Your task to perform on an android device: Search for the best gaming monitor on Best Buy Image 0: 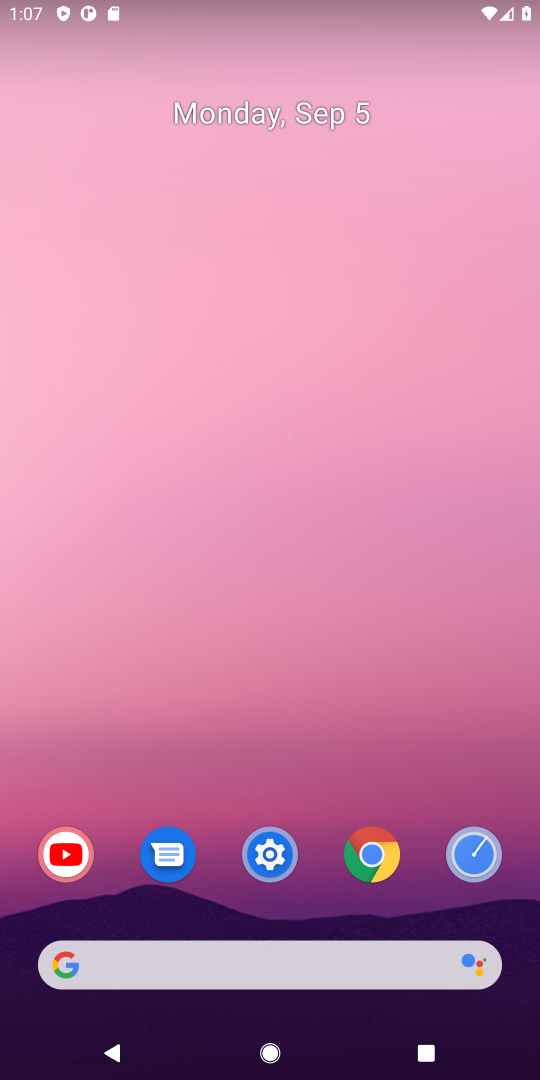
Step 0: click (366, 966)
Your task to perform on an android device: Search for the best gaming monitor on Best Buy Image 1: 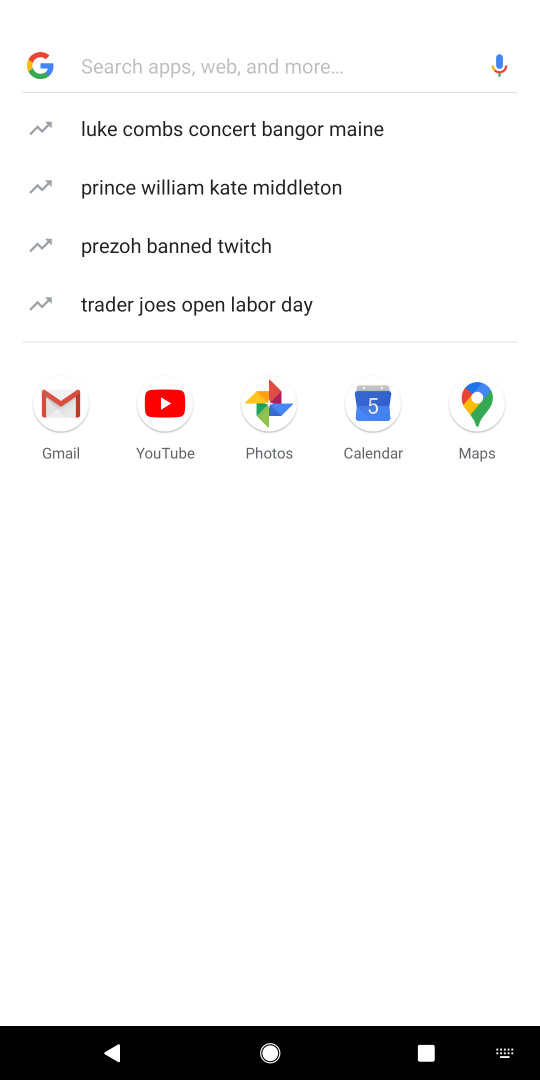
Step 1: type "Best Buy"
Your task to perform on an android device: Search for the best gaming monitor on Best Buy Image 2: 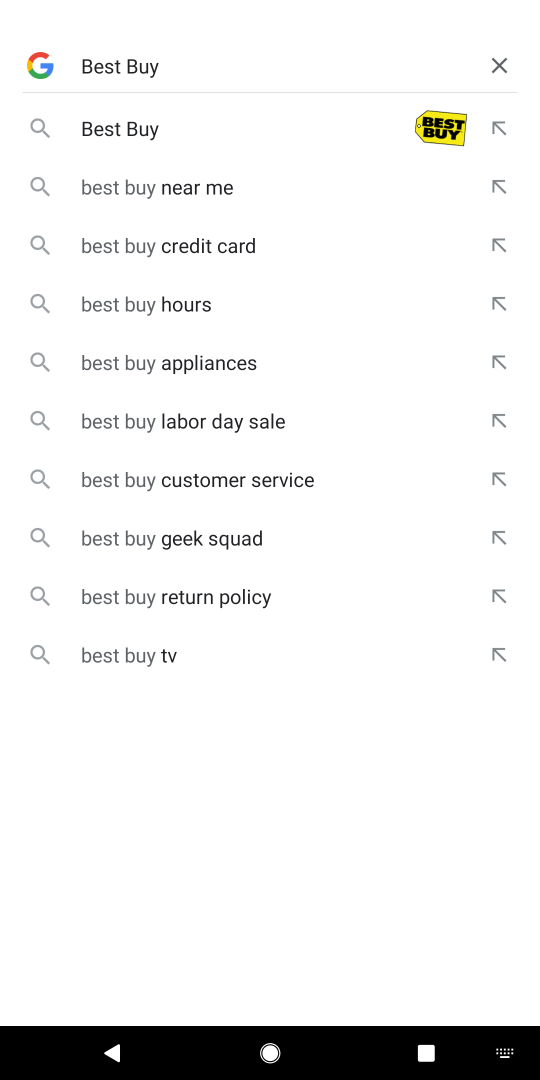
Step 2: type ""
Your task to perform on an android device: Search for the best gaming monitor on Best Buy Image 3: 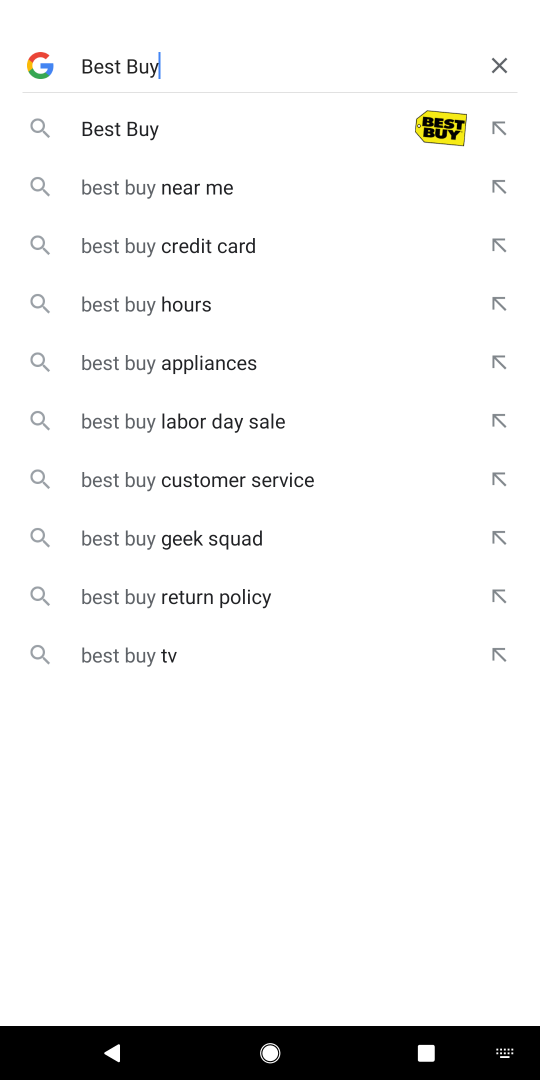
Step 3: click (295, 124)
Your task to perform on an android device: Search for the best gaming monitor on Best Buy Image 4: 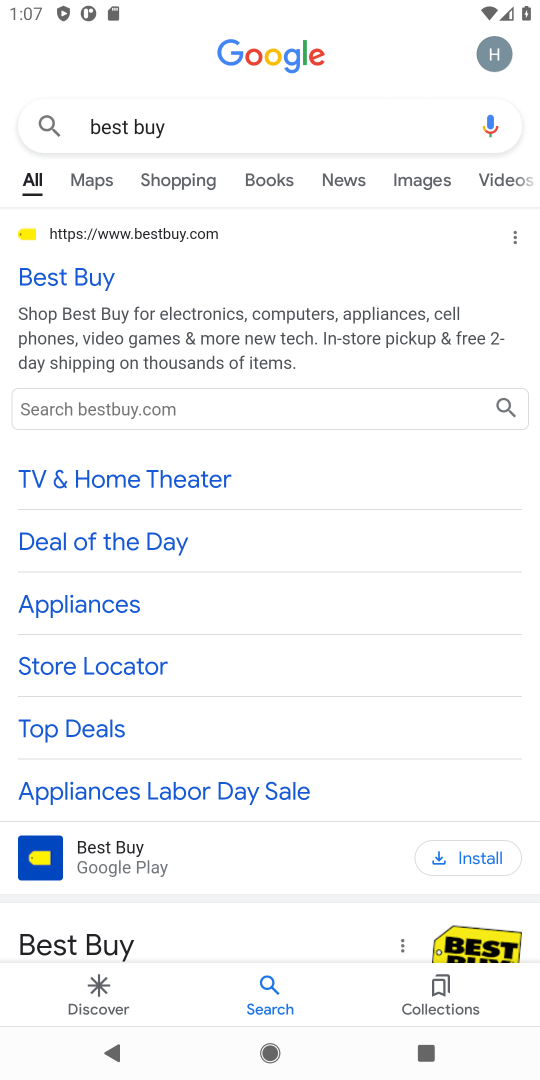
Step 4: click (90, 278)
Your task to perform on an android device: Search for the best gaming monitor on Best Buy Image 5: 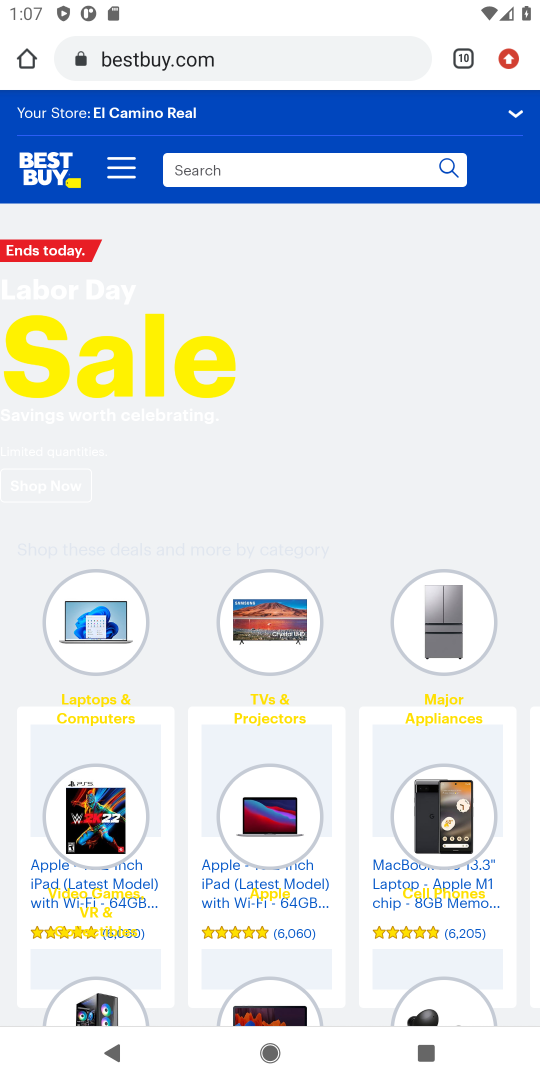
Step 5: click (242, 163)
Your task to perform on an android device: Search for the best gaming monitor on Best Buy Image 6: 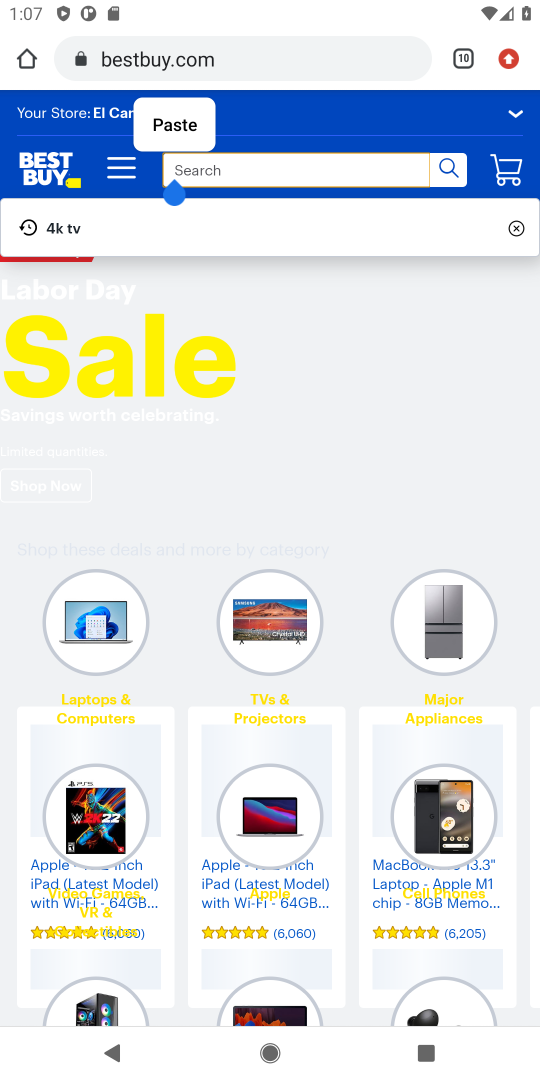
Step 6: type "gaming monitor"
Your task to perform on an android device: Search for the best gaming monitor on Best Buy Image 7: 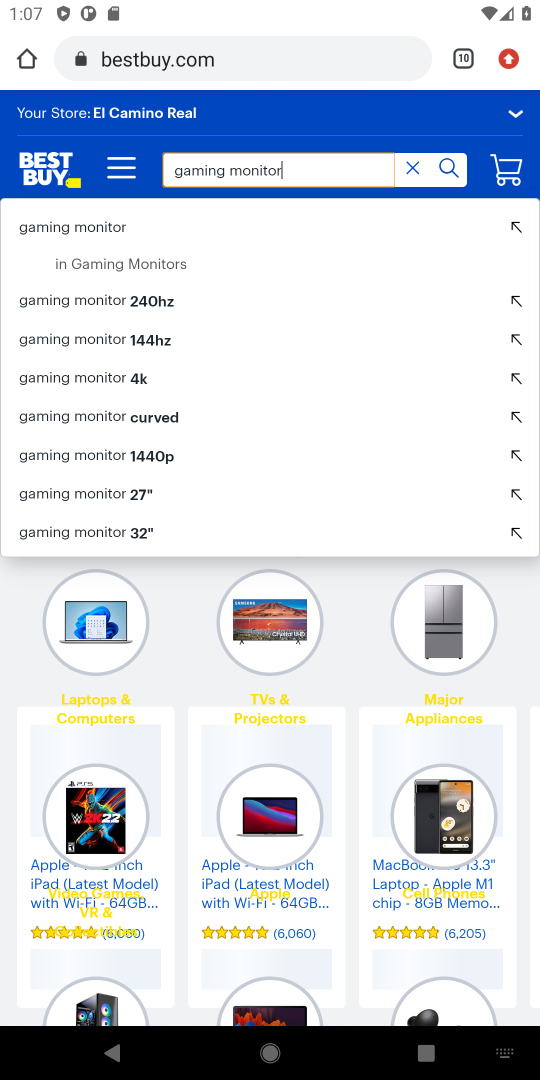
Step 7: click (452, 166)
Your task to perform on an android device: Search for the best gaming monitor on Best Buy Image 8: 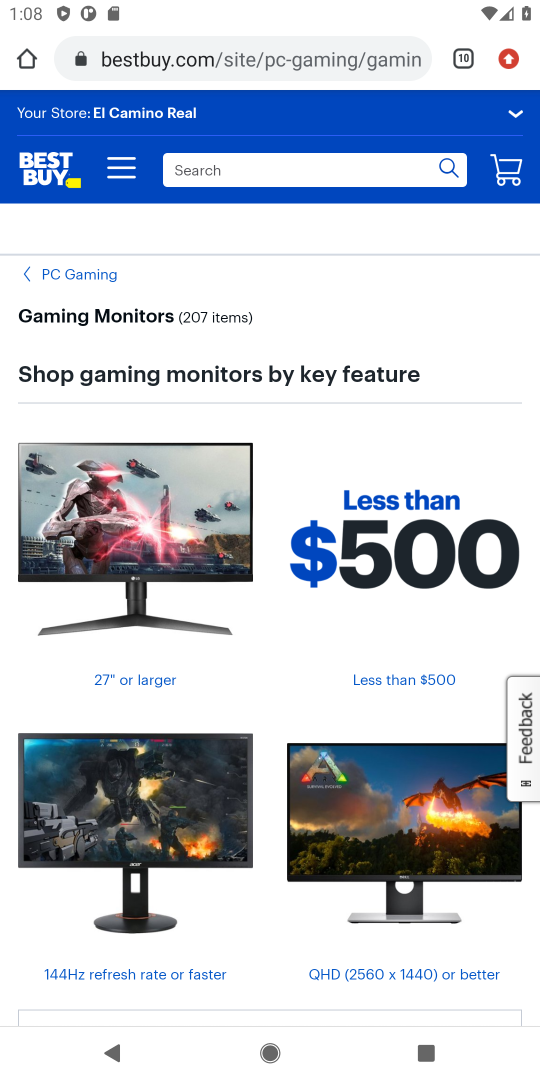
Step 8: drag from (273, 711) to (342, 243)
Your task to perform on an android device: Search for the best gaming monitor on Best Buy Image 9: 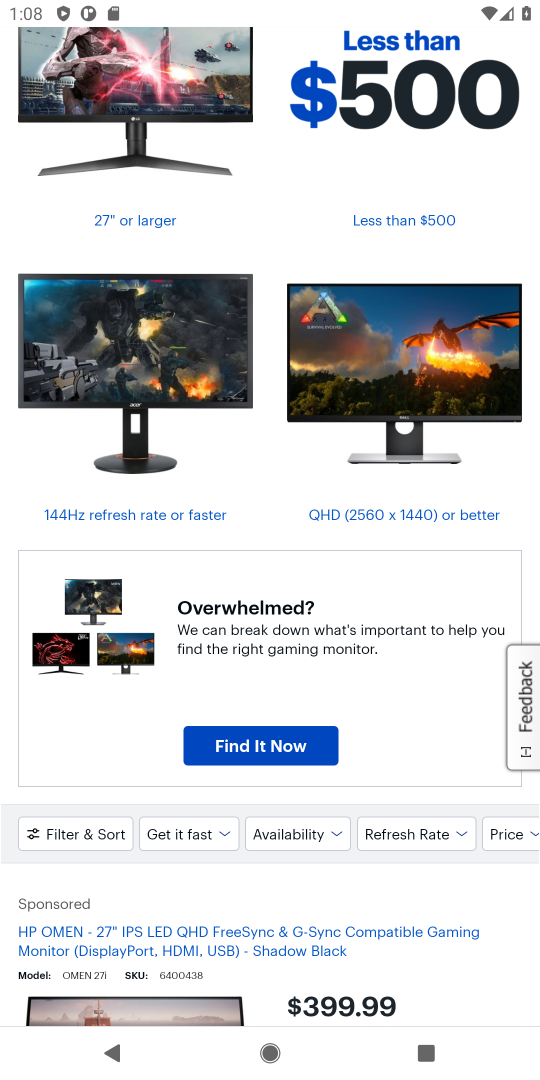
Step 9: drag from (329, 831) to (339, 343)
Your task to perform on an android device: Search for the best gaming monitor on Best Buy Image 10: 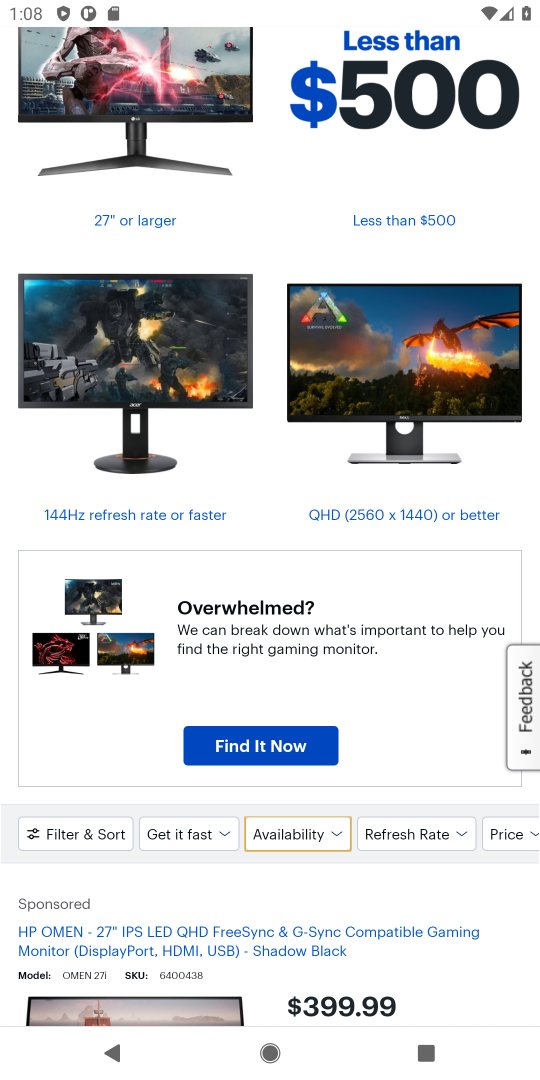
Step 10: click (429, 340)
Your task to perform on an android device: Search for the best gaming monitor on Best Buy Image 11: 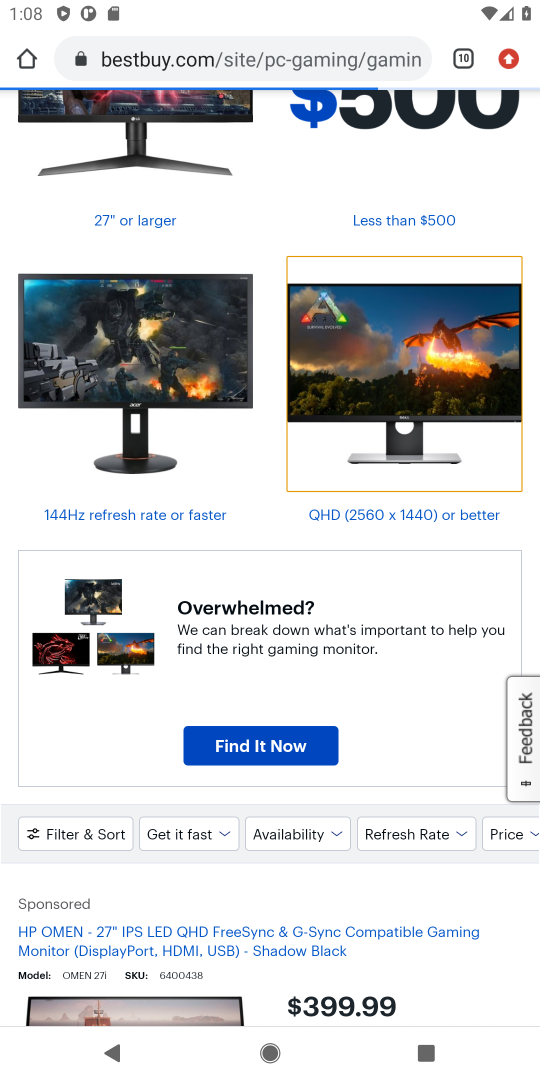
Step 11: task complete